Your task to perform on an android device: Open eBay Image 0: 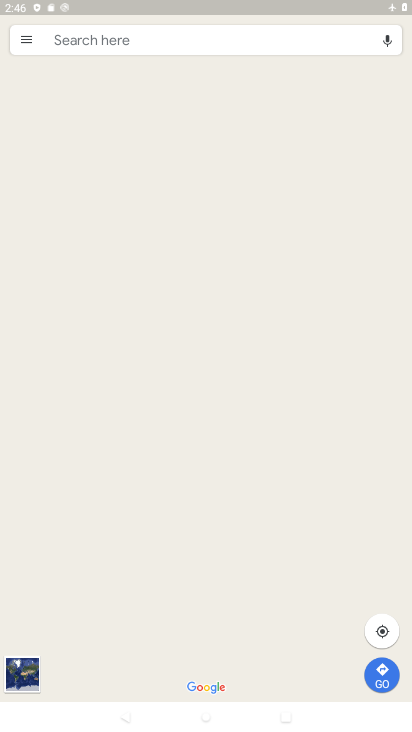
Step 0: press home button
Your task to perform on an android device: Open eBay Image 1: 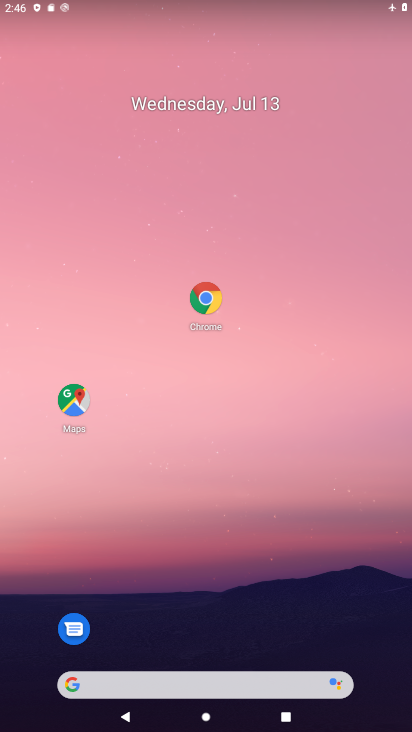
Step 1: click (202, 292)
Your task to perform on an android device: Open eBay Image 2: 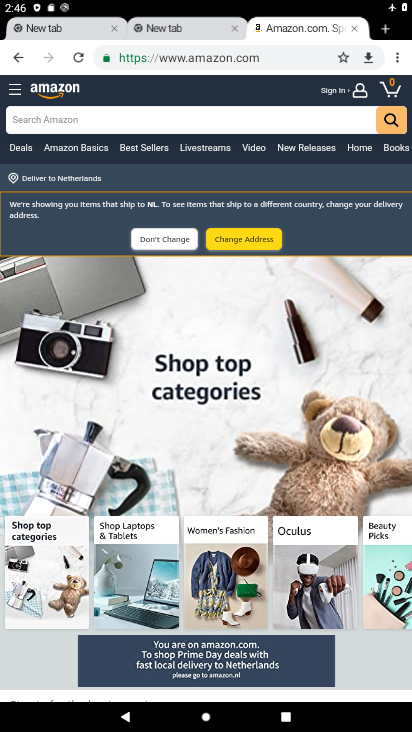
Step 2: click (179, 29)
Your task to perform on an android device: Open eBay Image 3: 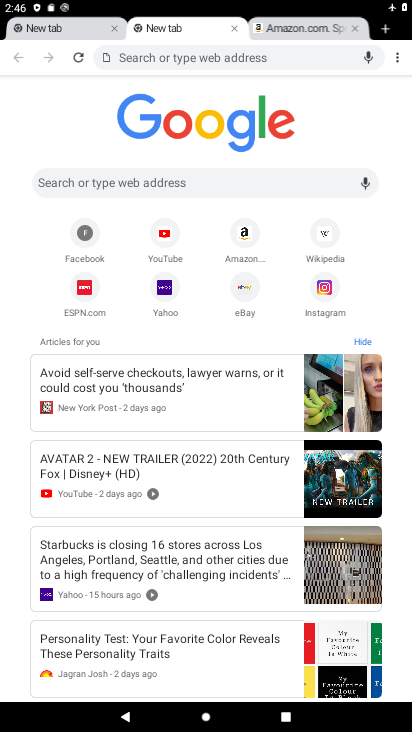
Step 3: click (179, 29)
Your task to perform on an android device: Open eBay Image 4: 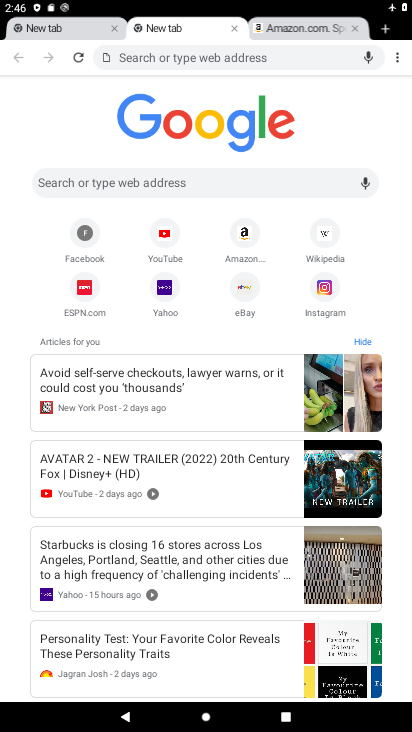
Step 4: click (248, 298)
Your task to perform on an android device: Open eBay Image 5: 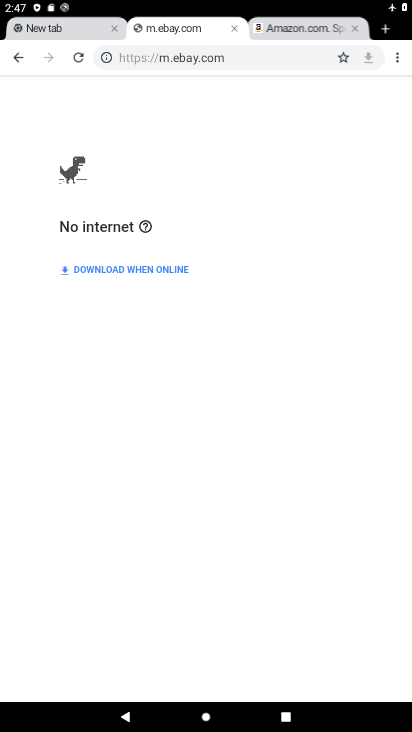
Step 5: drag from (127, 339) to (138, 573)
Your task to perform on an android device: Open eBay Image 6: 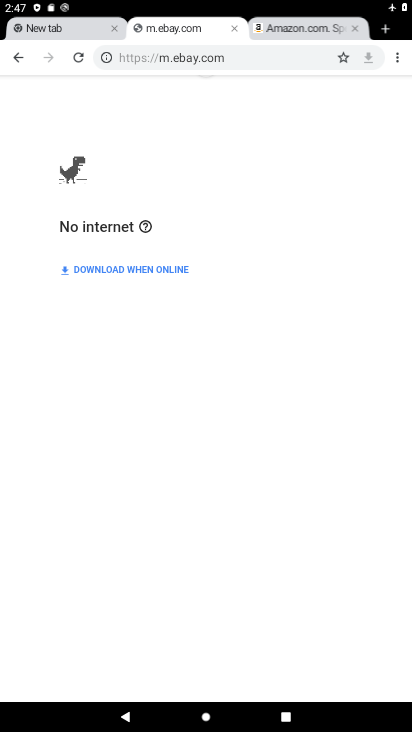
Step 6: click (159, 524)
Your task to perform on an android device: Open eBay Image 7: 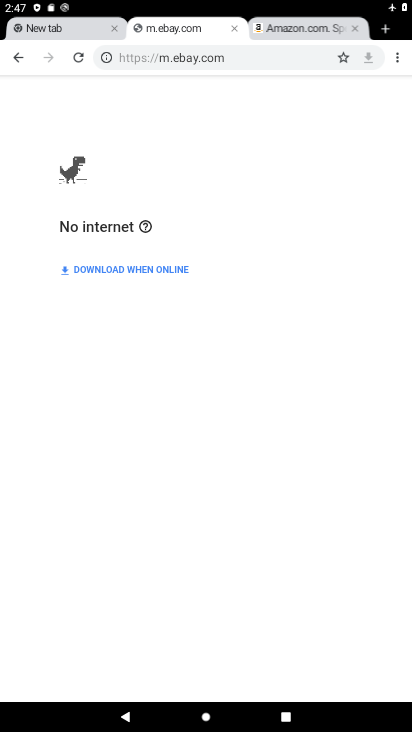
Step 7: click (165, 453)
Your task to perform on an android device: Open eBay Image 8: 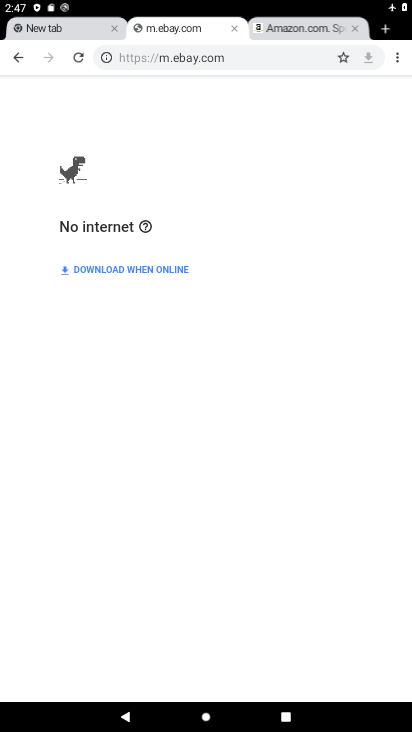
Step 8: click (167, 456)
Your task to perform on an android device: Open eBay Image 9: 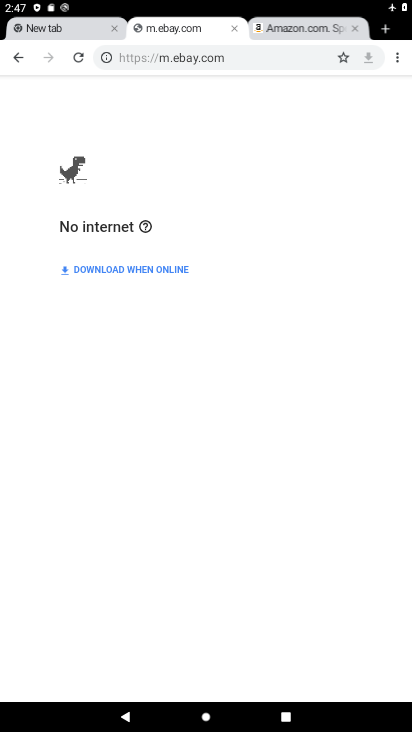
Step 9: click (171, 463)
Your task to perform on an android device: Open eBay Image 10: 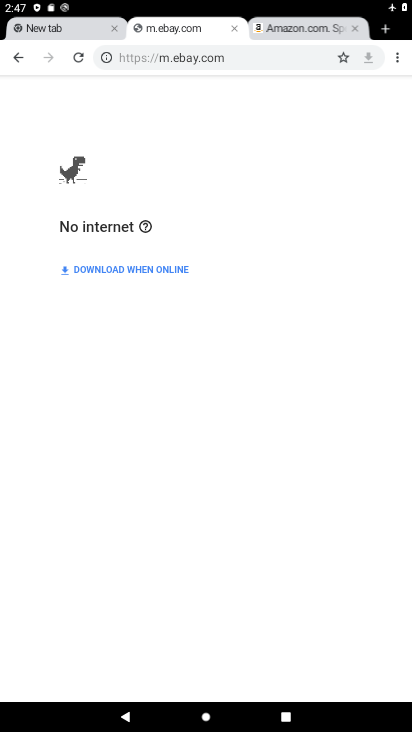
Step 10: click (171, 456)
Your task to perform on an android device: Open eBay Image 11: 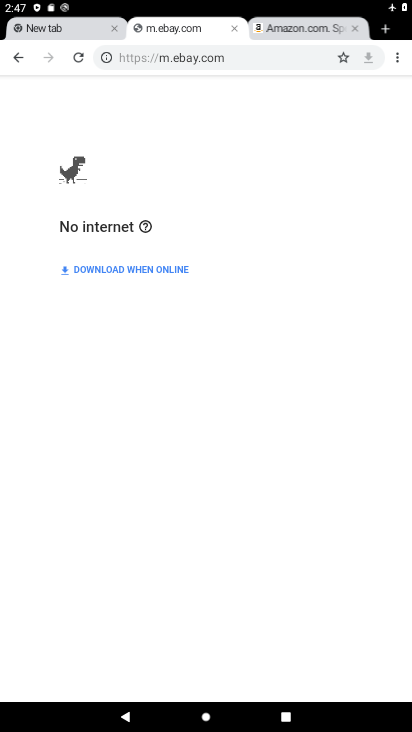
Step 11: click (205, 477)
Your task to perform on an android device: Open eBay Image 12: 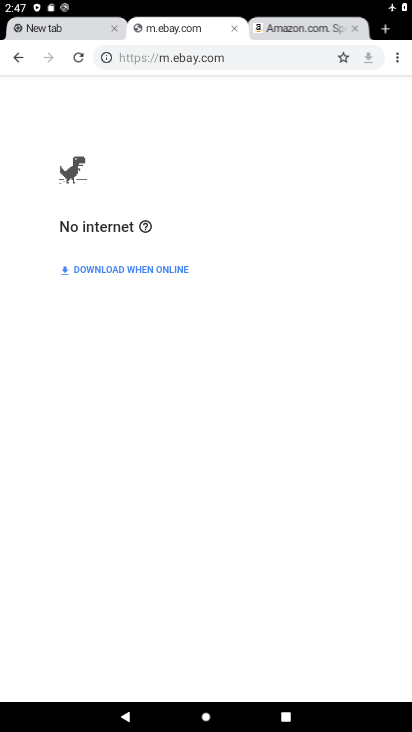
Step 12: click (222, 443)
Your task to perform on an android device: Open eBay Image 13: 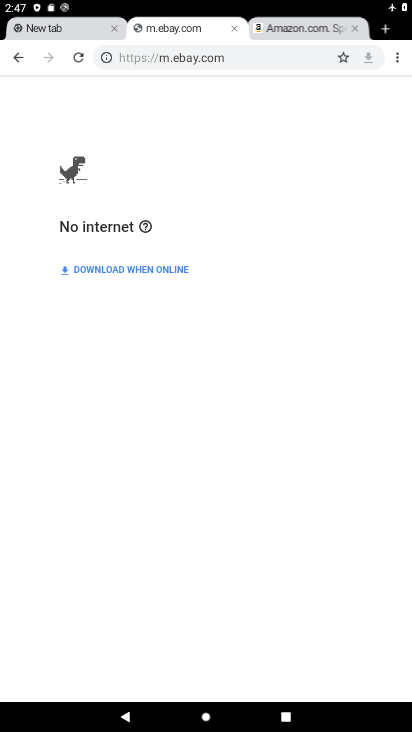
Step 13: click (235, 408)
Your task to perform on an android device: Open eBay Image 14: 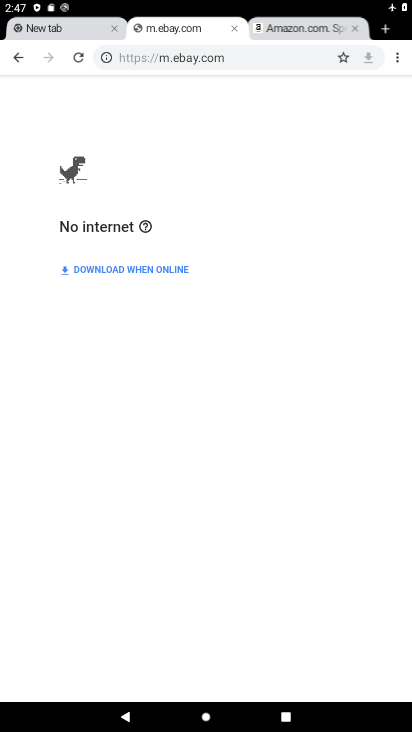
Step 14: click (235, 379)
Your task to perform on an android device: Open eBay Image 15: 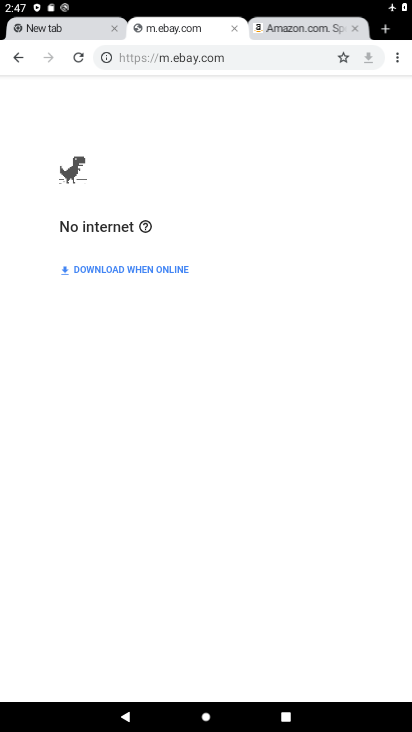
Step 15: click (231, 394)
Your task to perform on an android device: Open eBay Image 16: 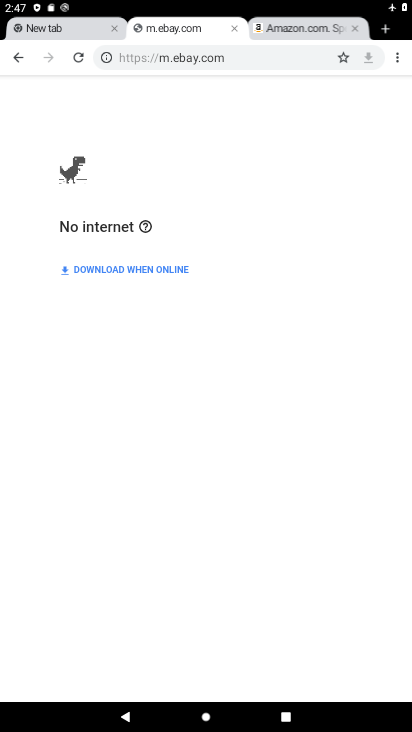
Step 16: task complete